Your task to perform on an android device: add a contact Image 0: 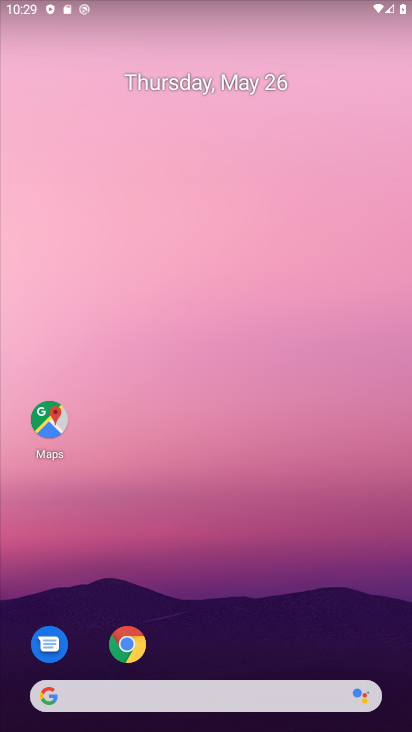
Step 0: click (184, 589)
Your task to perform on an android device: add a contact Image 1: 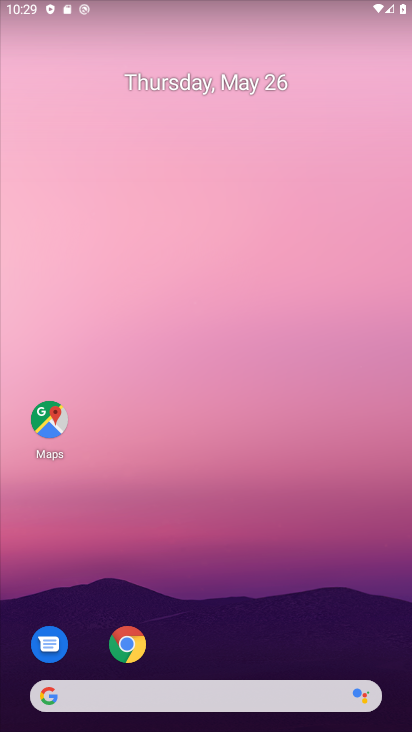
Step 1: click (297, 442)
Your task to perform on an android device: add a contact Image 2: 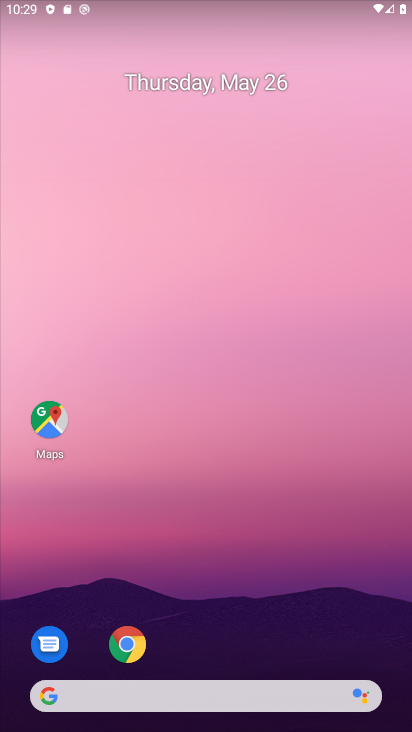
Step 2: drag from (200, 643) to (322, 85)
Your task to perform on an android device: add a contact Image 3: 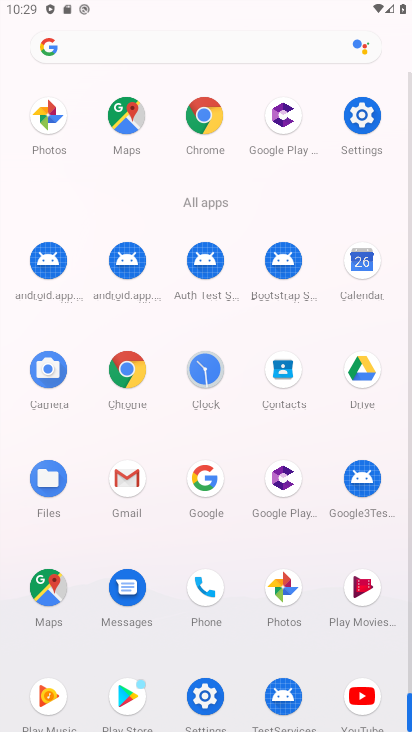
Step 3: click (281, 376)
Your task to perform on an android device: add a contact Image 4: 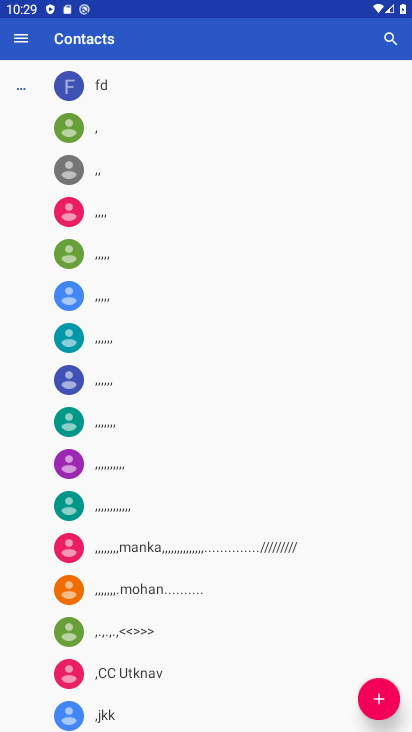
Step 4: click (389, 692)
Your task to perform on an android device: add a contact Image 5: 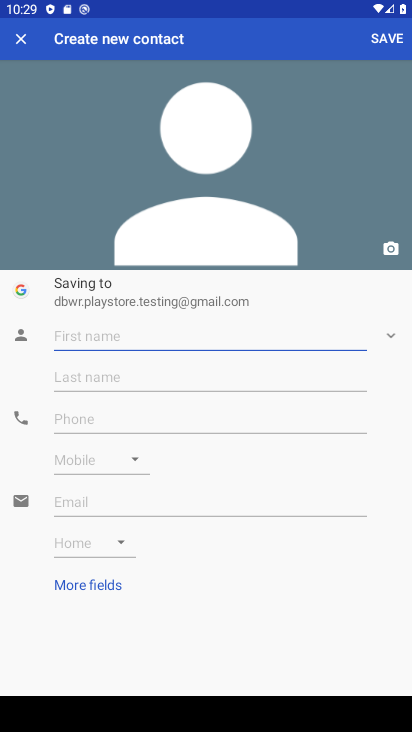
Step 5: type "ooooooo"
Your task to perform on an android device: add a contact Image 6: 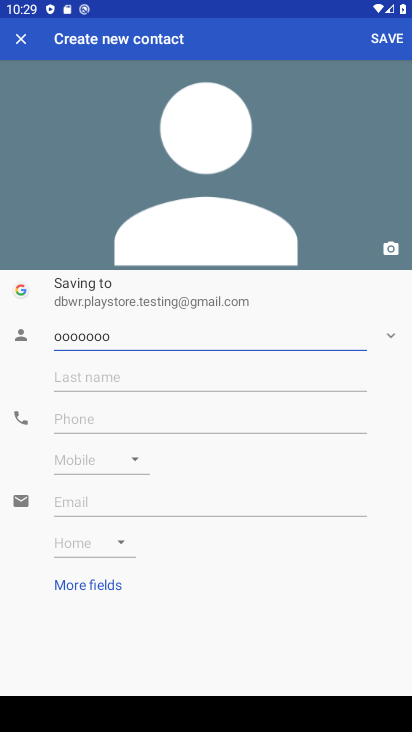
Step 6: click (115, 417)
Your task to perform on an android device: add a contact Image 7: 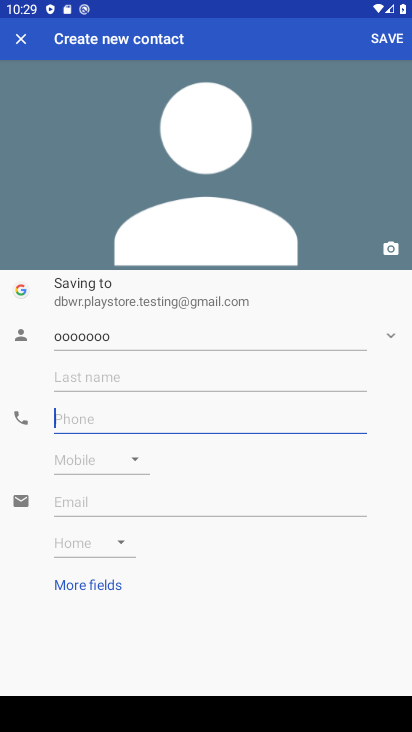
Step 7: type "98999889"
Your task to perform on an android device: add a contact Image 8: 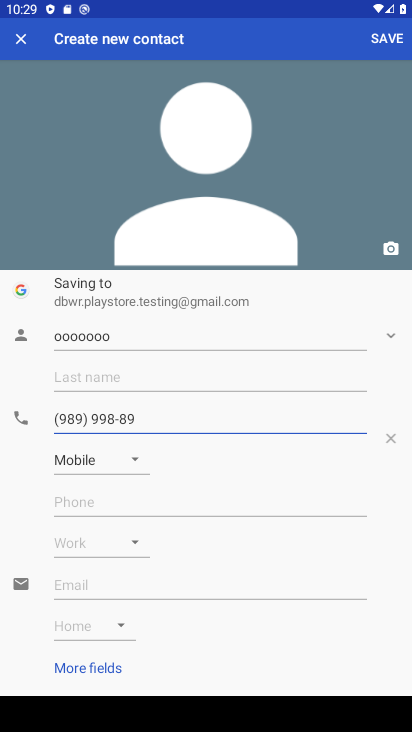
Step 8: click (389, 37)
Your task to perform on an android device: add a contact Image 9: 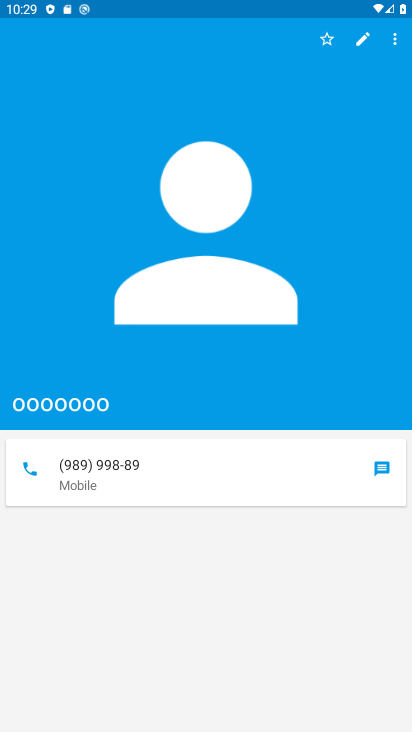
Step 9: task complete